Your task to perform on an android device: turn pop-ups off in chrome Image 0: 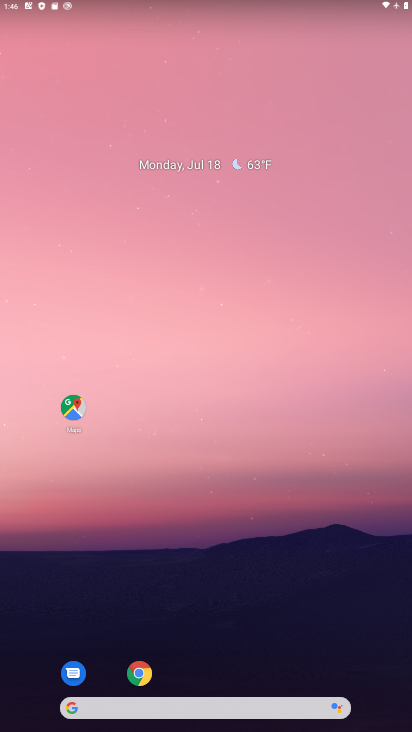
Step 0: drag from (198, 660) to (201, 193)
Your task to perform on an android device: turn pop-ups off in chrome Image 1: 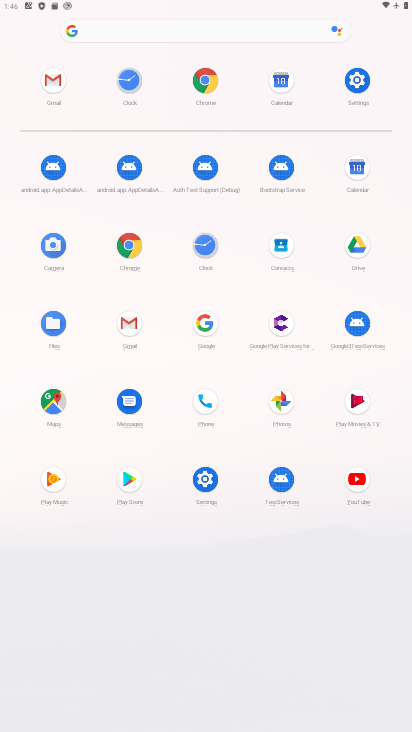
Step 1: click (208, 84)
Your task to perform on an android device: turn pop-ups off in chrome Image 2: 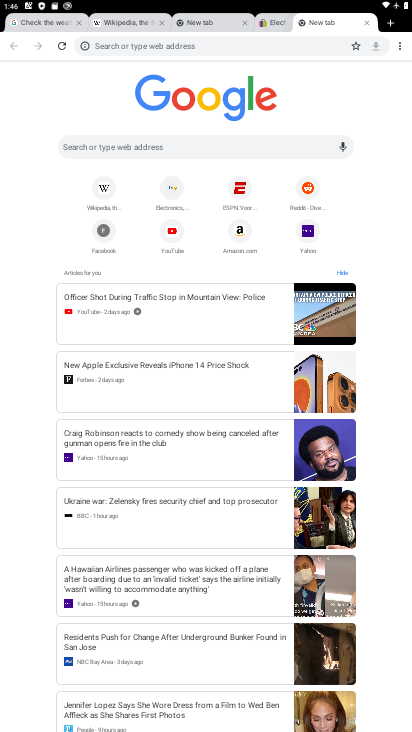
Step 2: click (407, 45)
Your task to perform on an android device: turn pop-ups off in chrome Image 3: 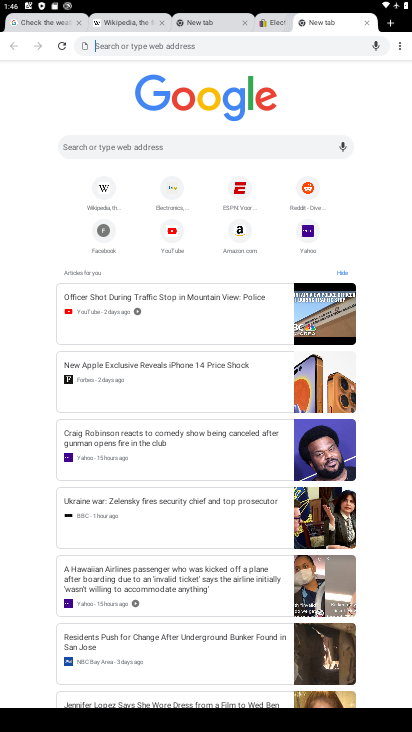
Step 3: click (399, 40)
Your task to perform on an android device: turn pop-ups off in chrome Image 4: 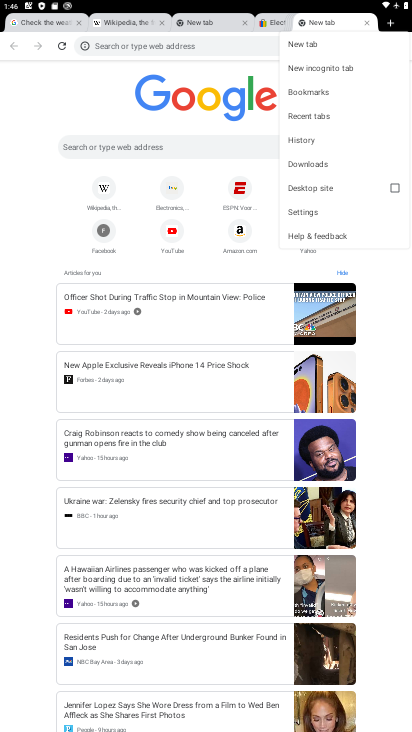
Step 4: click (320, 209)
Your task to perform on an android device: turn pop-ups off in chrome Image 5: 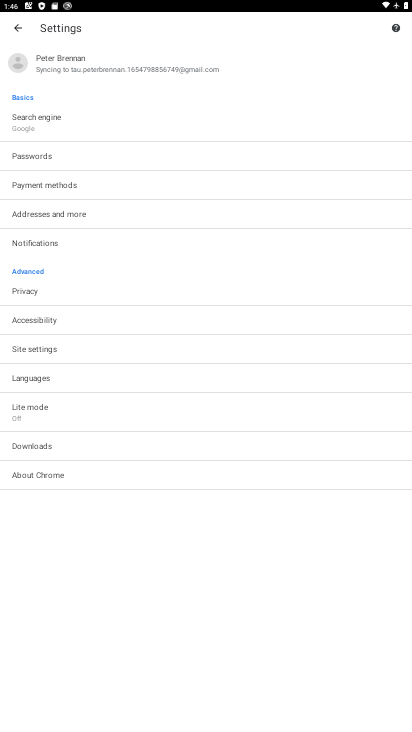
Step 5: click (86, 346)
Your task to perform on an android device: turn pop-ups off in chrome Image 6: 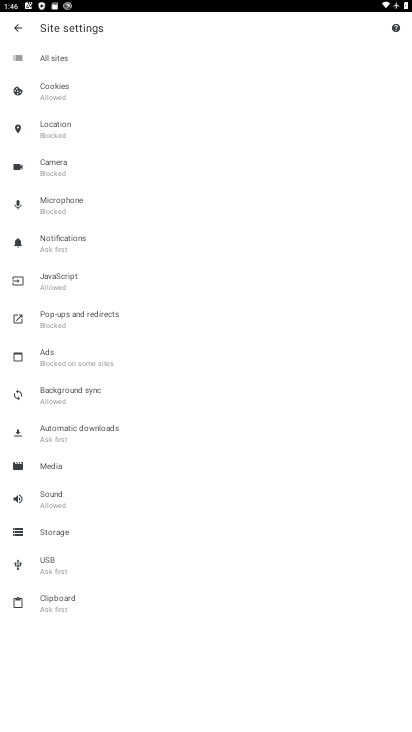
Step 6: click (82, 320)
Your task to perform on an android device: turn pop-ups off in chrome Image 7: 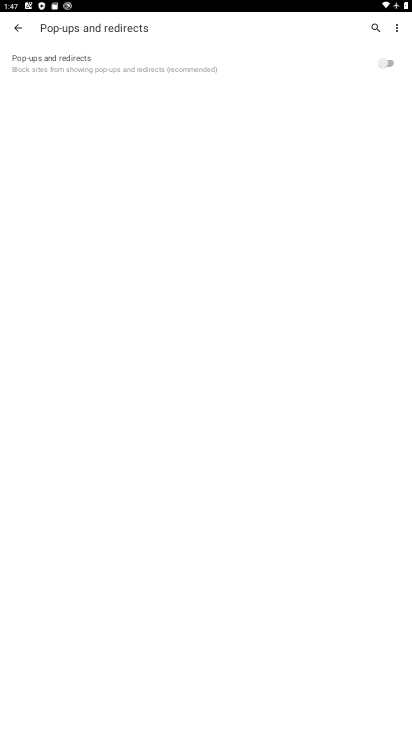
Step 7: task complete